Your task to perform on an android device: Empty the shopping cart on newegg.com. Search for "asus rog" on newegg.com, select the first entry, add it to the cart, then select checkout. Image 0: 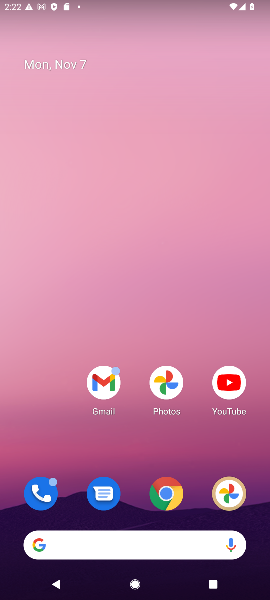
Step 0: press home button
Your task to perform on an android device: Empty the shopping cart on newegg.com. Search for "asus rog" on newegg.com, select the first entry, add it to the cart, then select checkout. Image 1: 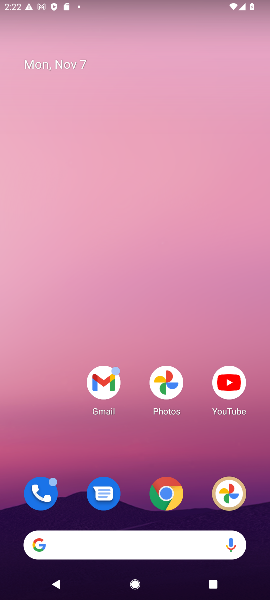
Step 1: drag from (139, 470) to (157, 86)
Your task to perform on an android device: Empty the shopping cart on newegg.com. Search for "asus rog" on newegg.com, select the first entry, add it to the cart, then select checkout. Image 2: 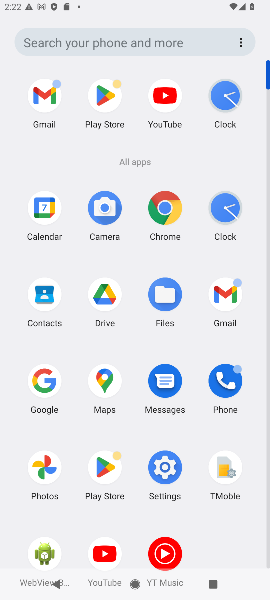
Step 2: click (161, 204)
Your task to perform on an android device: Empty the shopping cart on newegg.com. Search for "asus rog" on newegg.com, select the first entry, add it to the cart, then select checkout. Image 3: 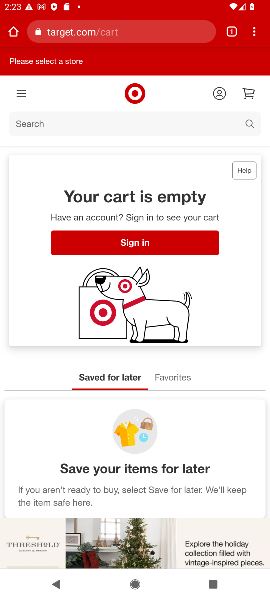
Step 3: click (91, 24)
Your task to perform on an android device: Empty the shopping cart on newegg.com. Search for "asus rog" on newegg.com, select the first entry, add it to the cart, then select checkout. Image 4: 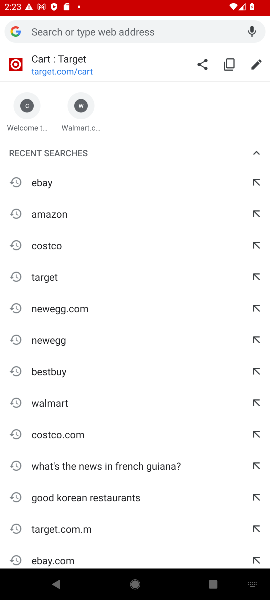
Step 4: type "newegg.com"
Your task to perform on an android device: Empty the shopping cart on newegg.com. Search for "asus rog" on newegg.com, select the first entry, add it to the cart, then select checkout. Image 5: 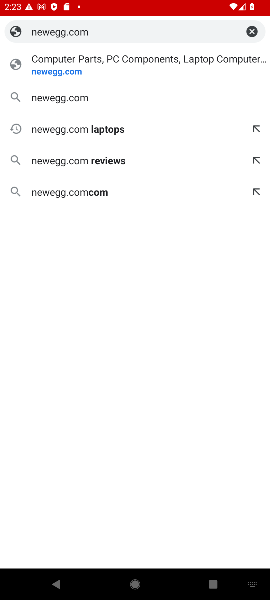
Step 5: click (89, 68)
Your task to perform on an android device: Empty the shopping cart on newegg.com. Search for "asus rog" on newegg.com, select the first entry, add it to the cart, then select checkout. Image 6: 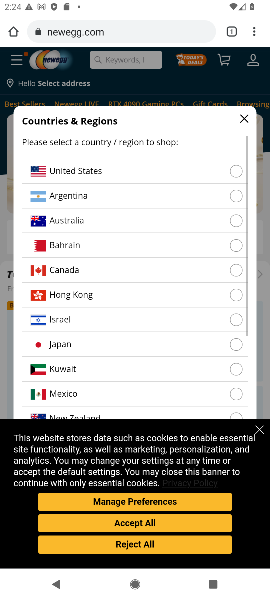
Step 6: click (134, 522)
Your task to perform on an android device: Empty the shopping cart on newegg.com. Search for "asus rog" on newegg.com, select the first entry, add it to the cart, then select checkout. Image 7: 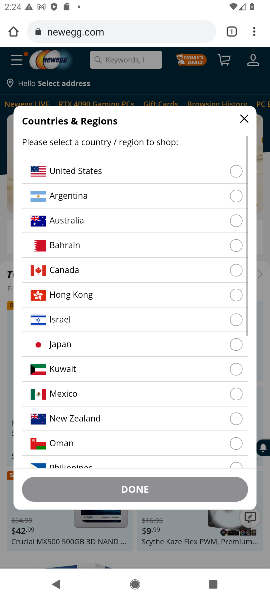
Step 7: click (237, 168)
Your task to perform on an android device: Empty the shopping cart on newegg.com. Search for "asus rog" on newegg.com, select the first entry, add it to the cart, then select checkout. Image 8: 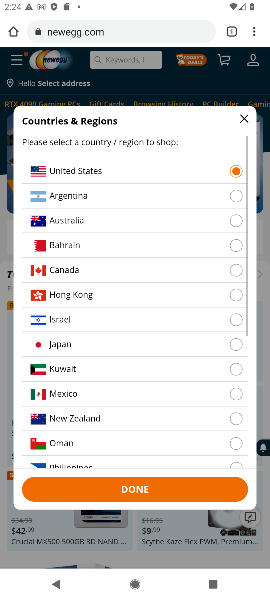
Step 8: click (140, 488)
Your task to perform on an android device: Empty the shopping cart on newegg.com. Search for "asus rog" on newegg.com, select the first entry, add it to the cart, then select checkout. Image 9: 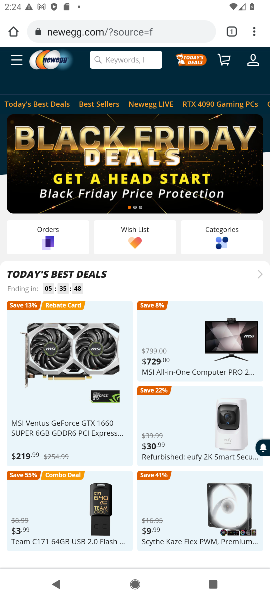
Step 9: click (113, 59)
Your task to perform on an android device: Empty the shopping cart on newegg.com. Search for "asus rog" on newegg.com, select the first entry, add it to the cart, then select checkout. Image 10: 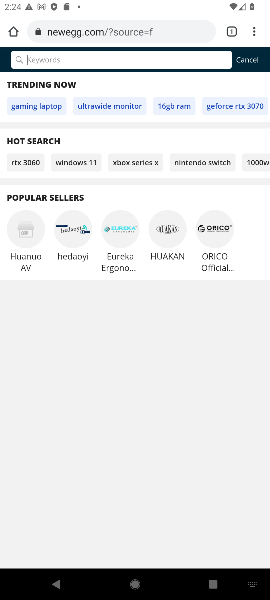
Step 10: type "asus rog"
Your task to perform on an android device: Empty the shopping cart on newegg.com. Search for "asus rog" on newegg.com, select the first entry, add it to the cart, then select checkout. Image 11: 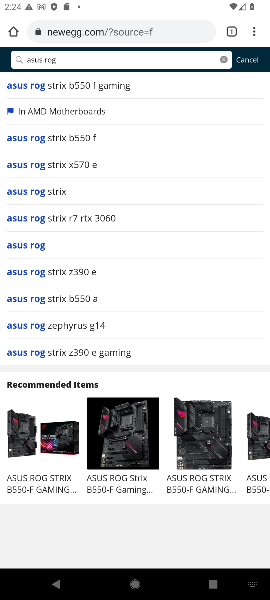
Step 11: click (54, 84)
Your task to perform on an android device: Empty the shopping cart on newegg.com. Search for "asus rog" on newegg.com, select the first entry, add it to the cart, then select checkout. Image 12: 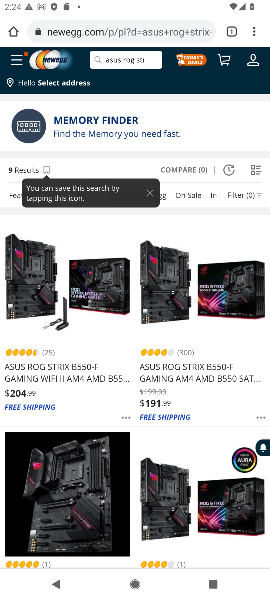
Step 12: click (61, 307)
Your task to perform on an android device: Empty the shopping cart on newegg.com. Search for "asus rog" on newegg.com, select the first entry, add it to the cart, then select checkout. Image 13: 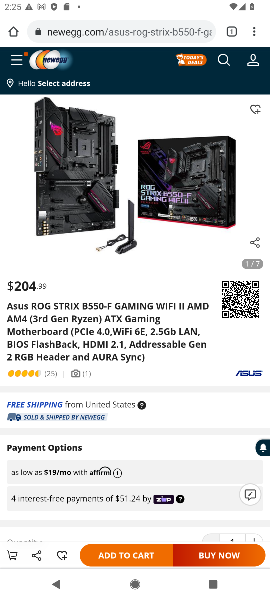
Step 13: click (122, 550)
Your task to perform on an android device: Empty the shopping cart on newegg.com. Search for "asus rog" on newegg.com, select the first entry, add it to the cart, then select checkout. Image 14: 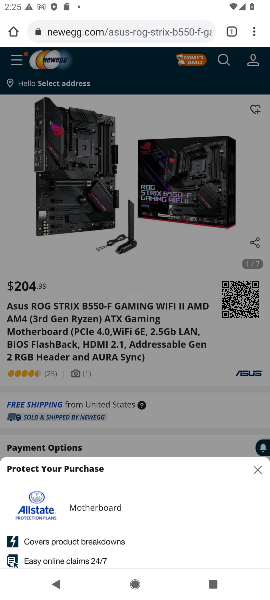
Step 14: click (130, 523)
Your task to perform on an android device: Empty the shopping cart on newegg.com. Search for "asus rog" on newegg.com, select the first entry, add it to the cart, then select checkout. Image 15: 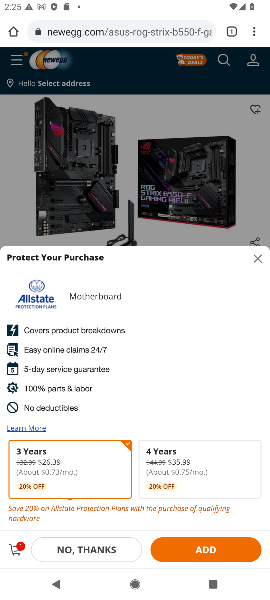
Step 15: click (130, 523)
Your task to perform on an android device: Empty the shopping cart on newegg.com. Search for "asus rog" on newegg.com, select the first entry, add it to the cart, then select checkout. Image 16: 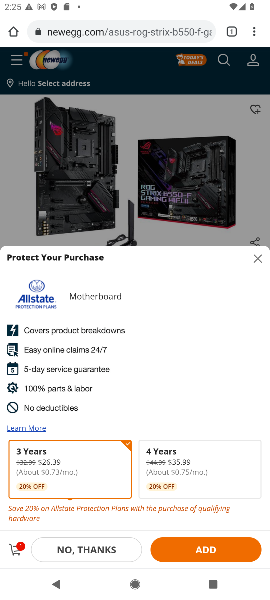
Step 16: click (96, 550)
Your task to perform on an android device: Empty the shopping cart on newegg.com. Search for "asus rog" on newegg.com, select the first entry, add it to the cart, then select checkout. Image 17: 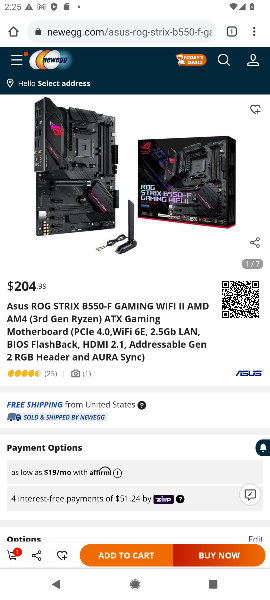
Step 17: click (130, 523)
Your task to perform on an android device: Empty the shopping cart on newegg.com. Search for "asus rog" on newegg.com, select the first entry, add it to the cart, then select checkout. Image 18: 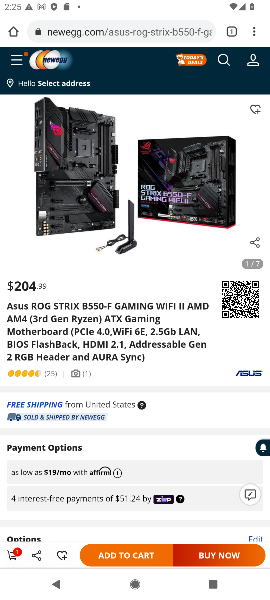
Step 18: click (10, 558)
Your task to perform on an android device: Empty the shopping cart on newegg.com. Search for "asus rog" on newegg.com, select the first entry, add it to the cart, then select checkout. Image 19: 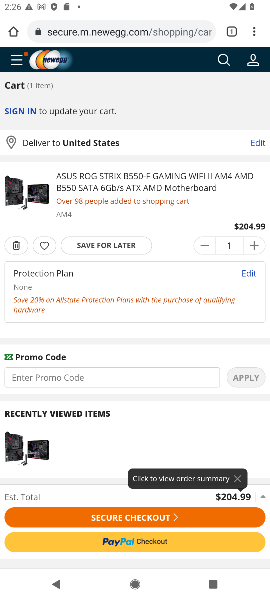
Step 19: click (131, 515)
Your task to perform on an android device: Empty the shopping cart on newegg.com. Search for "asus rog" on newegg.com, select the first entry, add it to the cart, then select checkout. Image 20: 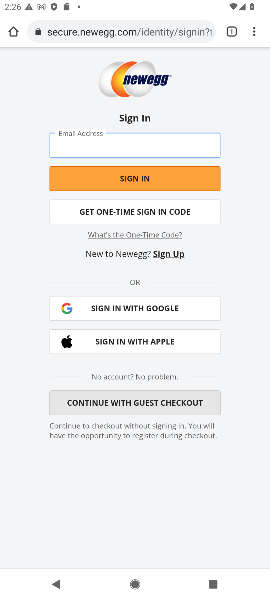
Step 20: task complete